Your task to perform on an android device: toggle data saver in the chrome app Image 0: 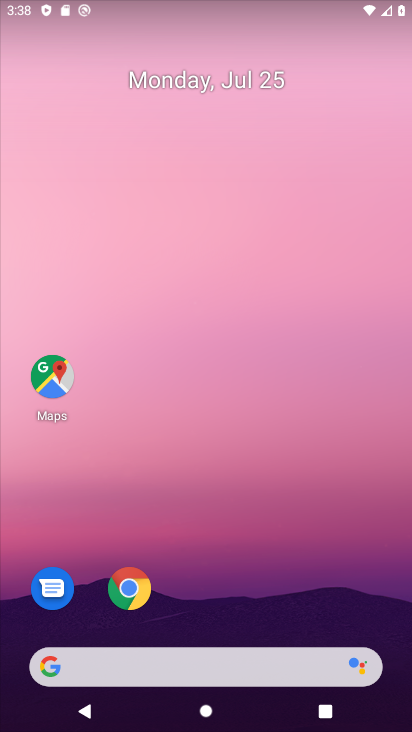
Step 0: click (127, 581)
Your task to perform on an android device: toggle data saver in the chrome app Image 1: 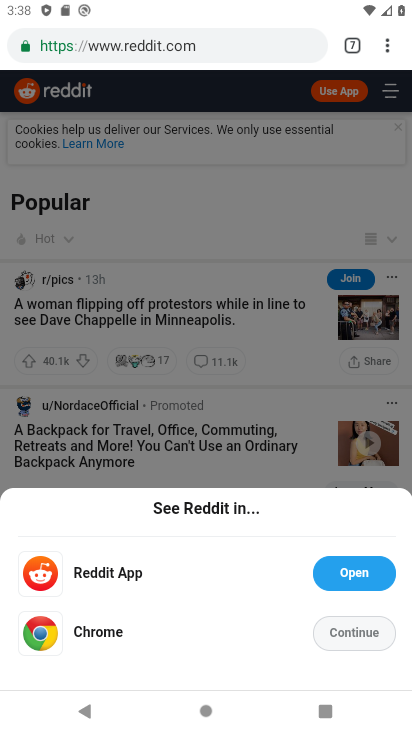
Step 1: click (389, 49)
Your task to perform on an android device: toggle data saver in the chrome app Image 2: 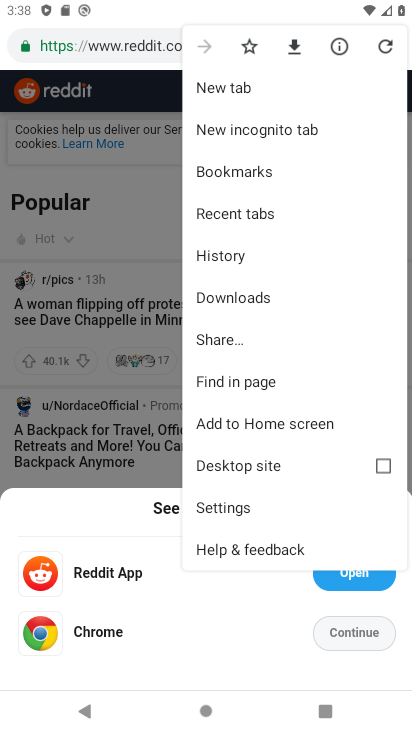
Step 2: click (234, 502)
Your task to perform on an android device: toggle data saver in the chrome app Image 3: 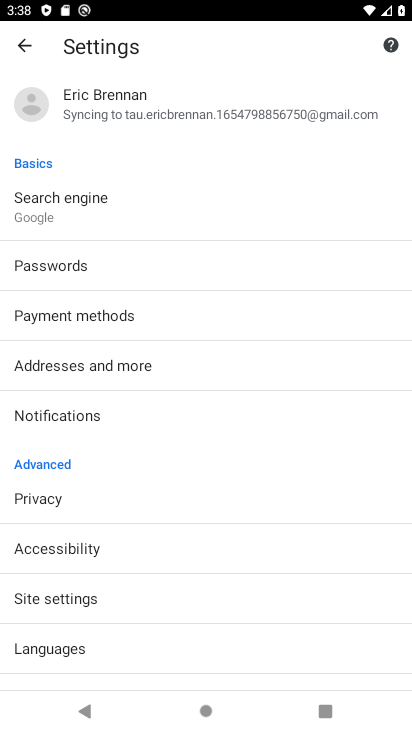
Step 3: drag from (150, 600) to (151, 403)
Your task to perform on an android device: toggle data saver in the chrome app Image 4: 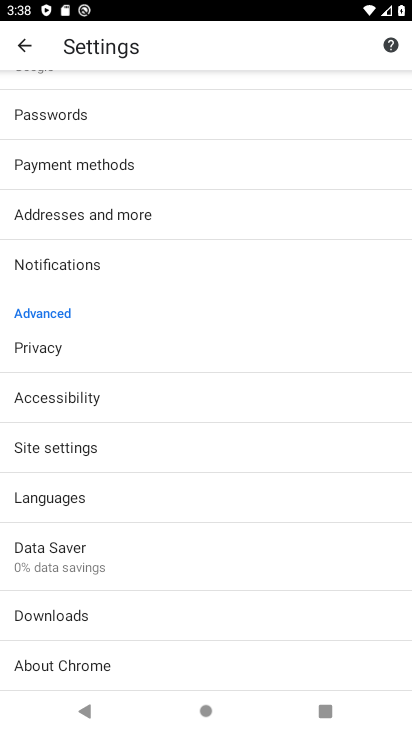
Step 4: click (46, 546)
Your task to perform on an android device: toggle data saver in the chrome app Image 5: 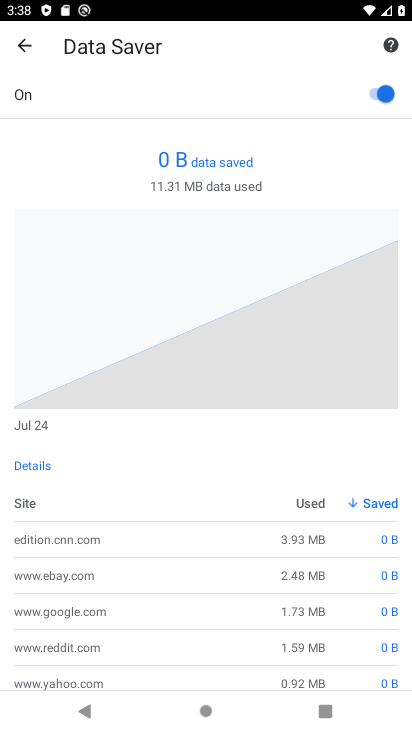
Step 5: click (385, 91)
Your task to perform on an android device: toggle data saver in the chrome app Image 6: 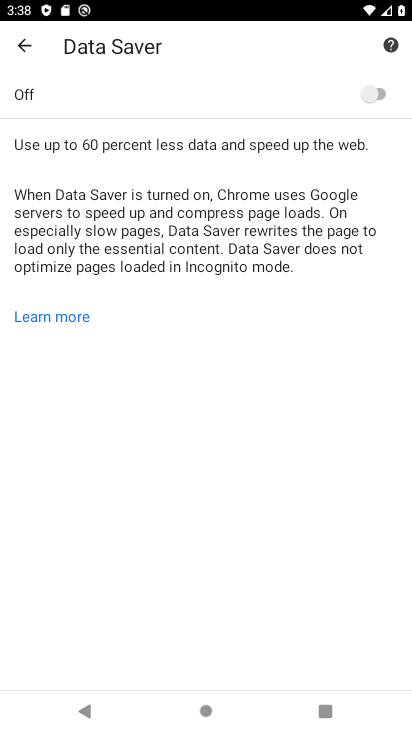
Step 6: task complete